Your task to perform on an android device: turn off translation in the chrome app Image 0: 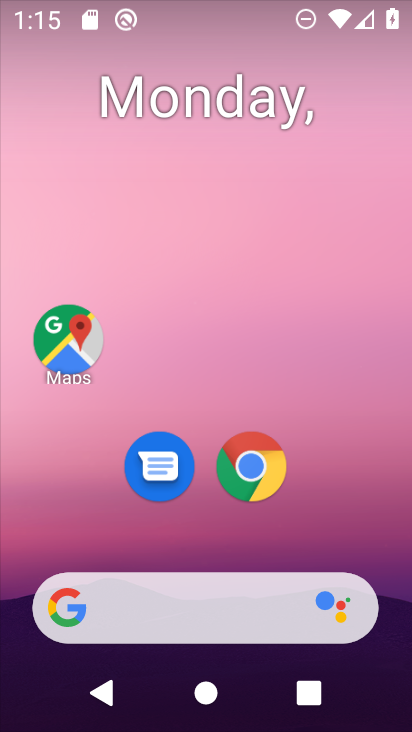
Step 0: drag from (218, 539) to (246, 2)
Your task to perform on an android device: turn off translation in the chrome app Image 1: 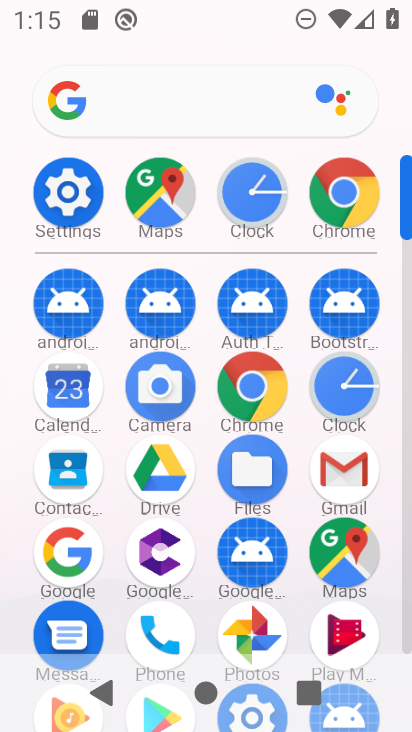
Step 1: click (255, 388)
Your task to perform on an android device: turn off translation in the chrome app Image 2: 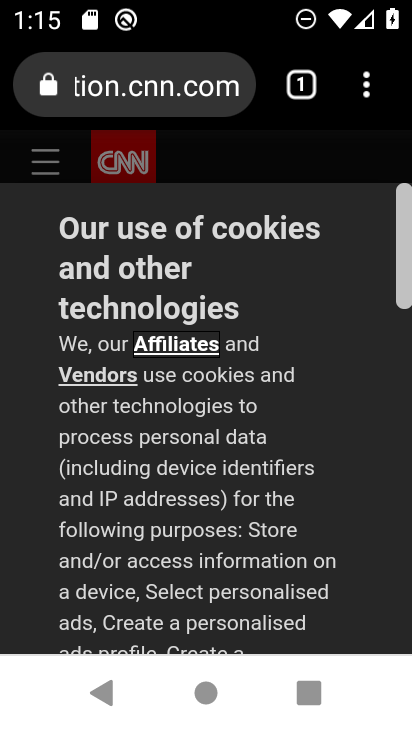
Step 2: click (366, 75)
Your task to perform on an android device: turn off translation in the chrome app Image 3: 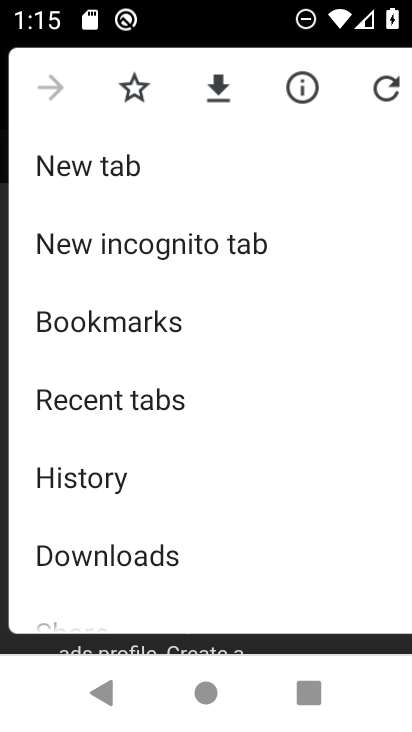
Step 3: drag from (167, 542) to (201, 27)
Your task to perform on an android device: turn off translation in the chrome app Image 4: 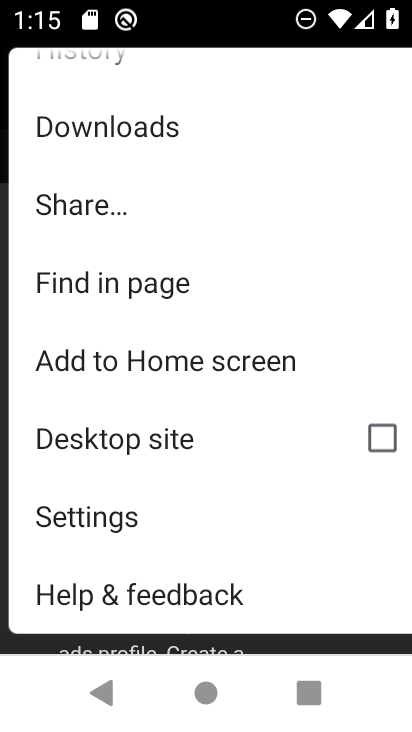
Step 4: click (115, 521)
Your task to perform on an android device: turn off translation in the chrome app Image 5: 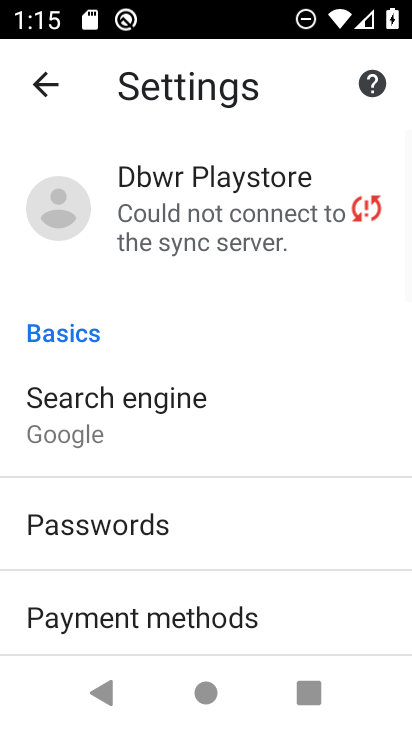
Step 5: drag from (168, 575) to (277, 119)
Your task to perform on an android device: turn off translation in the chrome app Image 6: 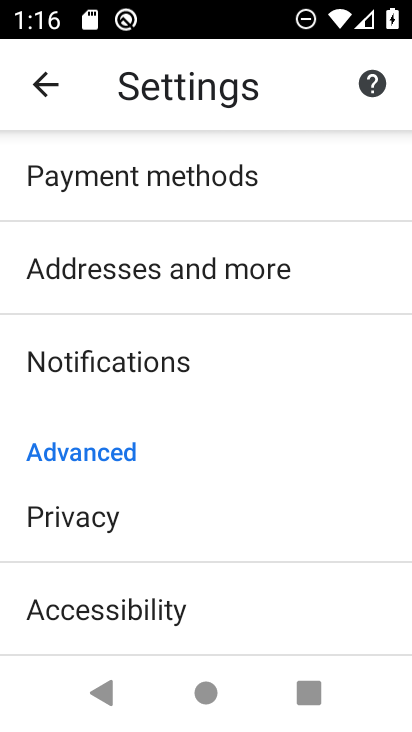
Step 6: drag from (175, 548) to (220, 183)
Your task to perform on an android device: turn off translation in the chrome app Image 7: 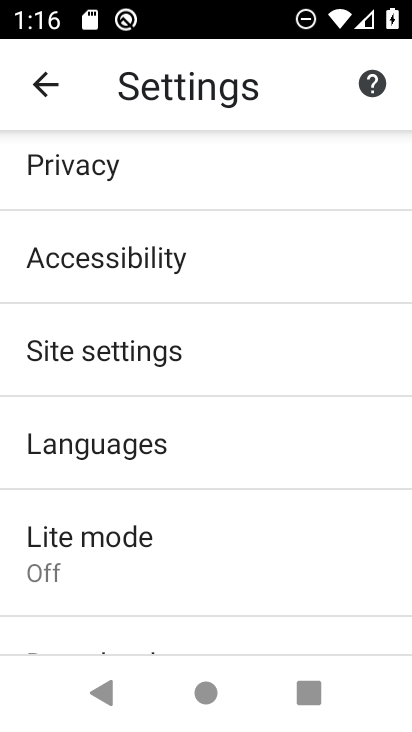
Step 7: click (147, 440)
Your task to perform on an android device: turn off translation in the chrome app Image 8: 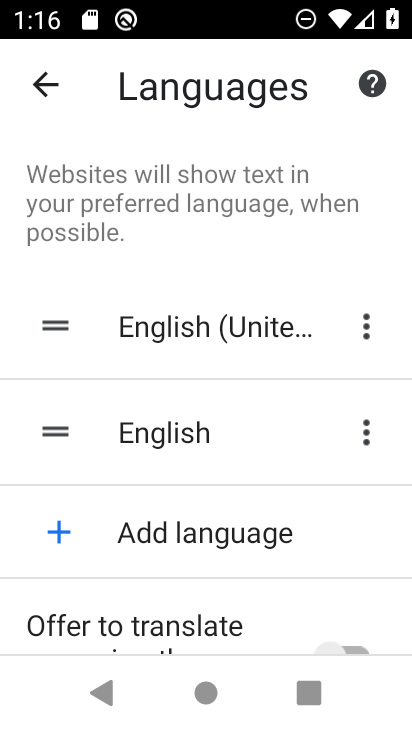
Step 8: task complete